Your task to perform on an android device: Open calendar and show me the third week of next month Image 0: 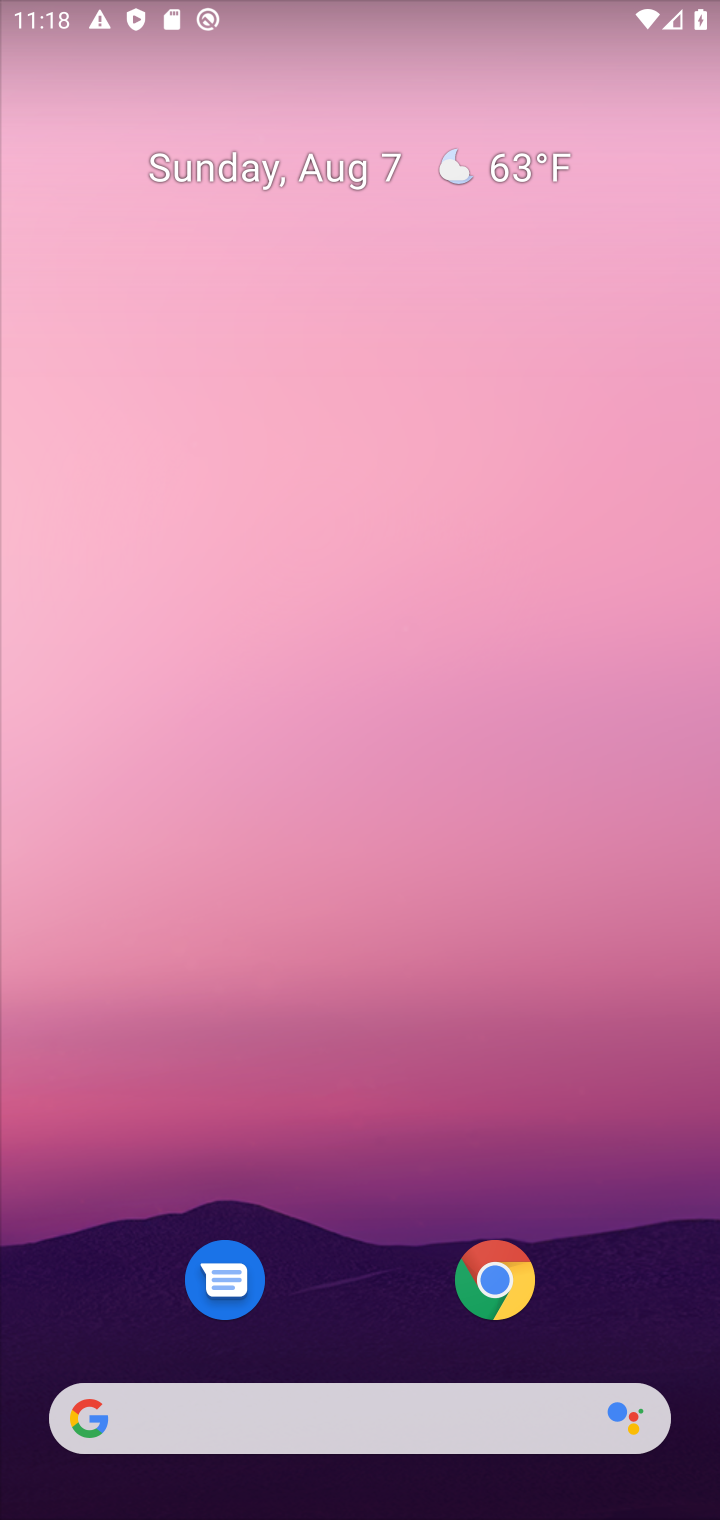
Step 0: drag from (343, 1275) to (324, 103)
Your task to perform on an android device: Open calendar and show me the third week of next month Image 1: 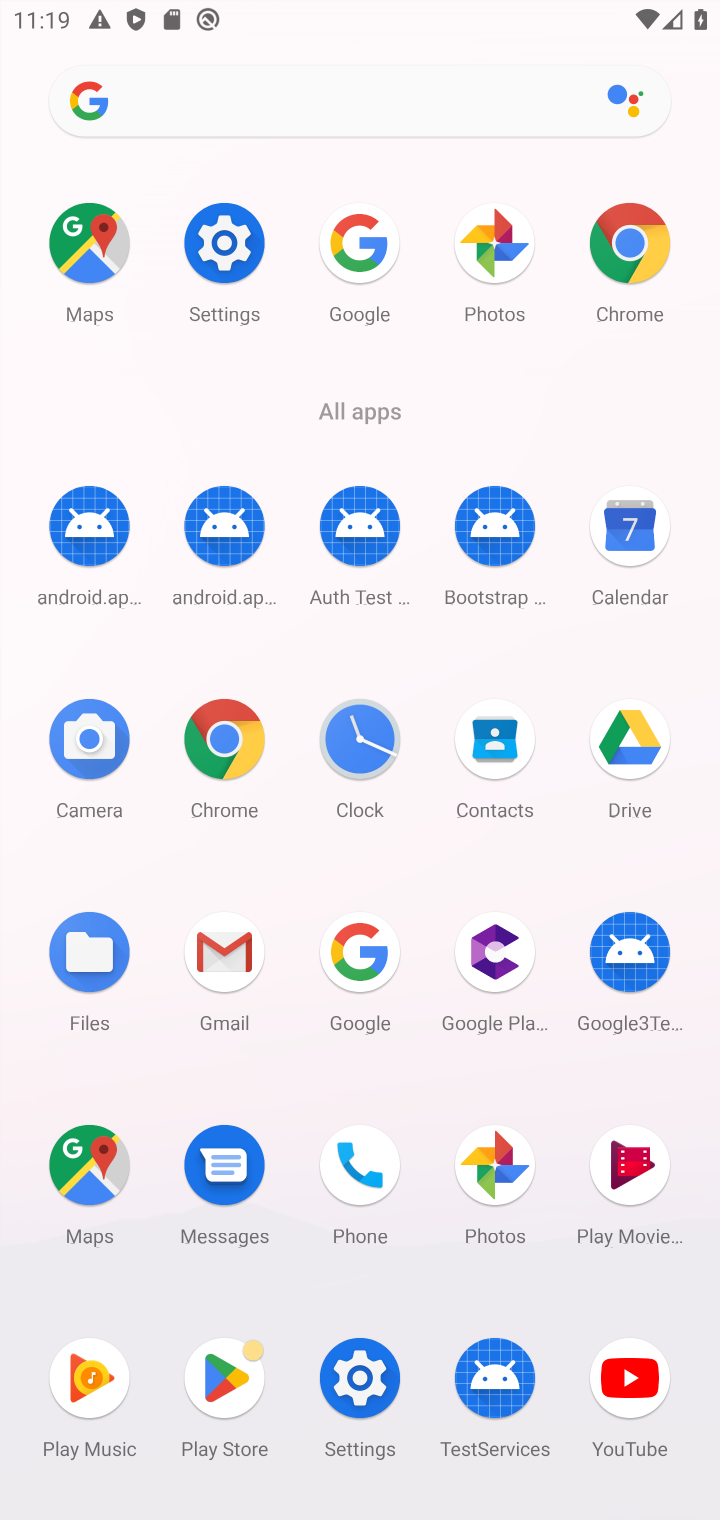
Step 1: click (619, 533)
Your task to perform on an android device: Open calendar and show me the third week of next month Image 2: 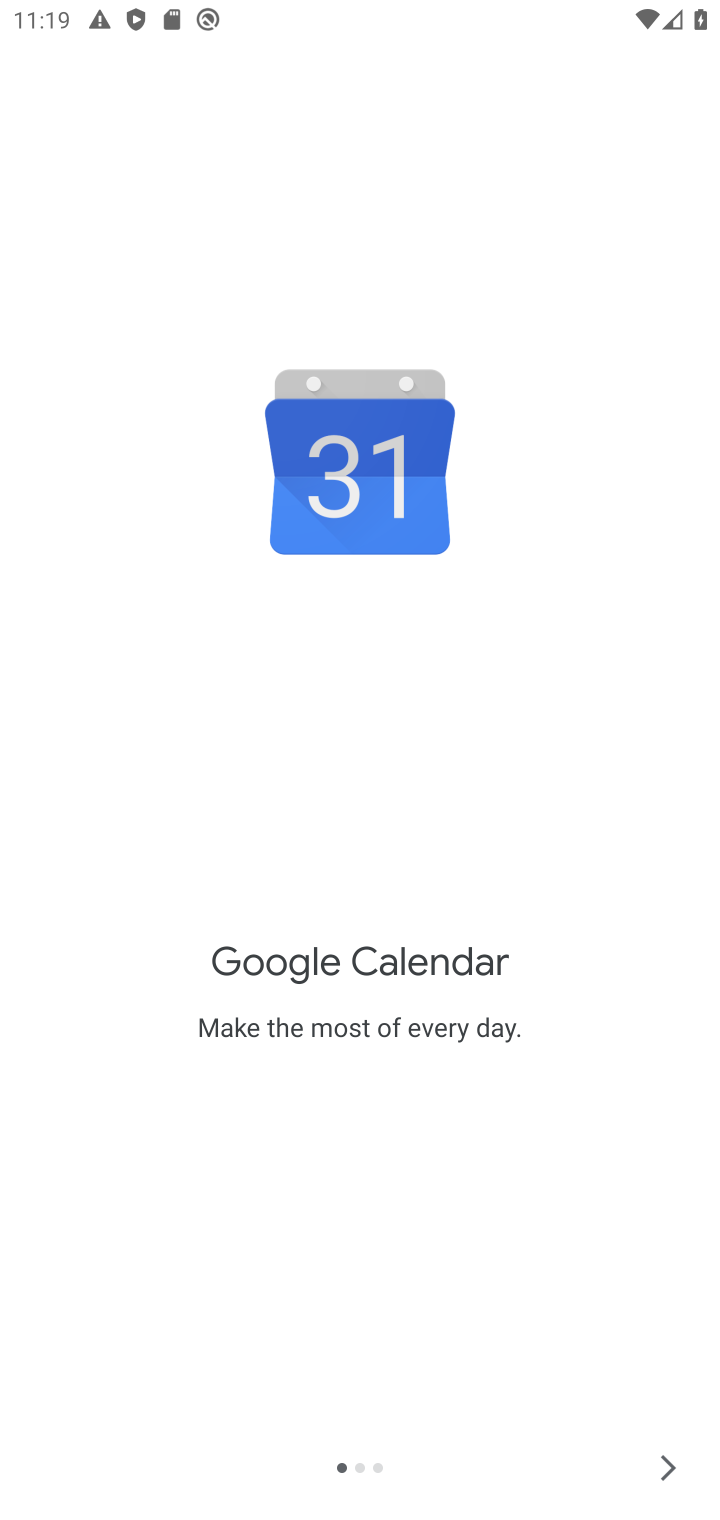
Step 2: click (668, 1464)
Your task to perform on an android device: Open calendar and show me the third week of next month Image 3: 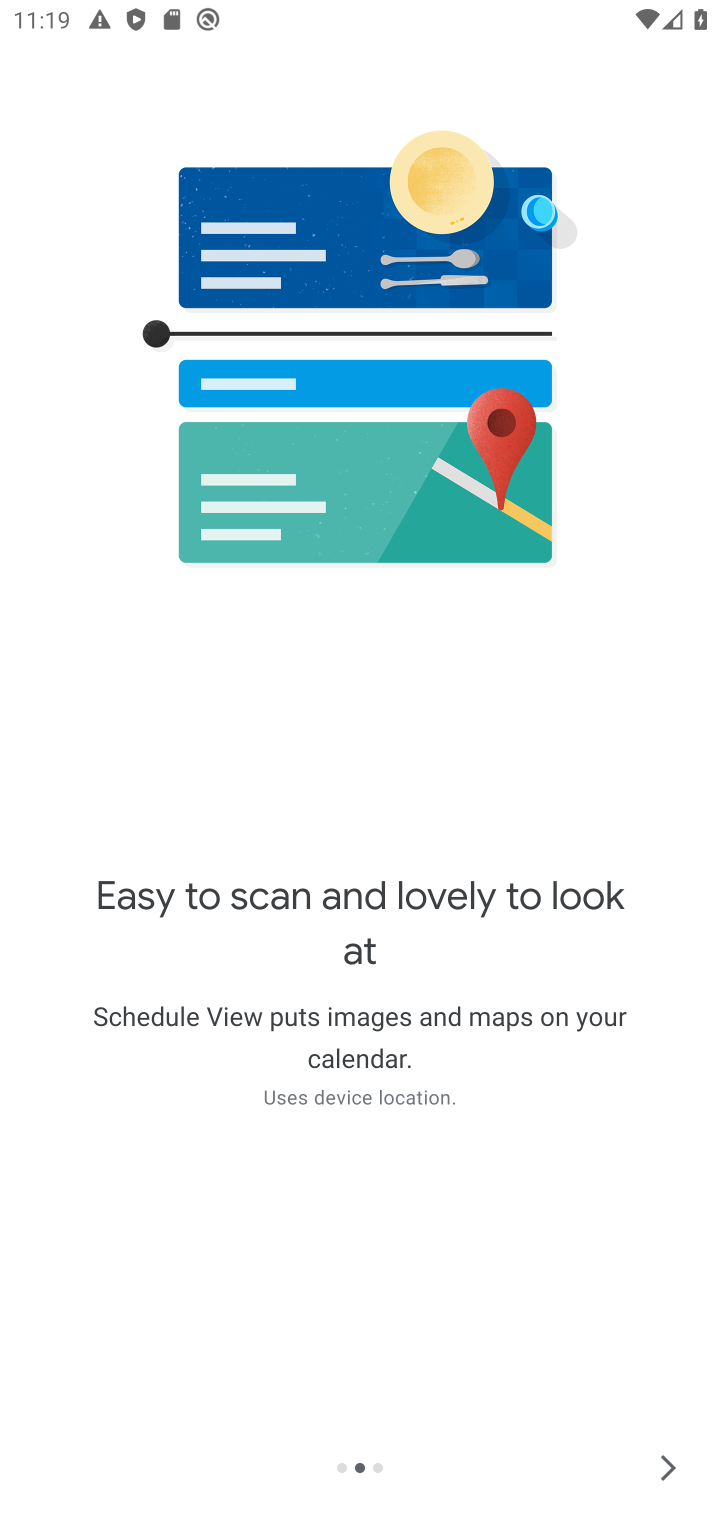
Step 3: click (668, 1464)
Your task to perform on an android device: Open calendar and show me the third week of next month Image 4: 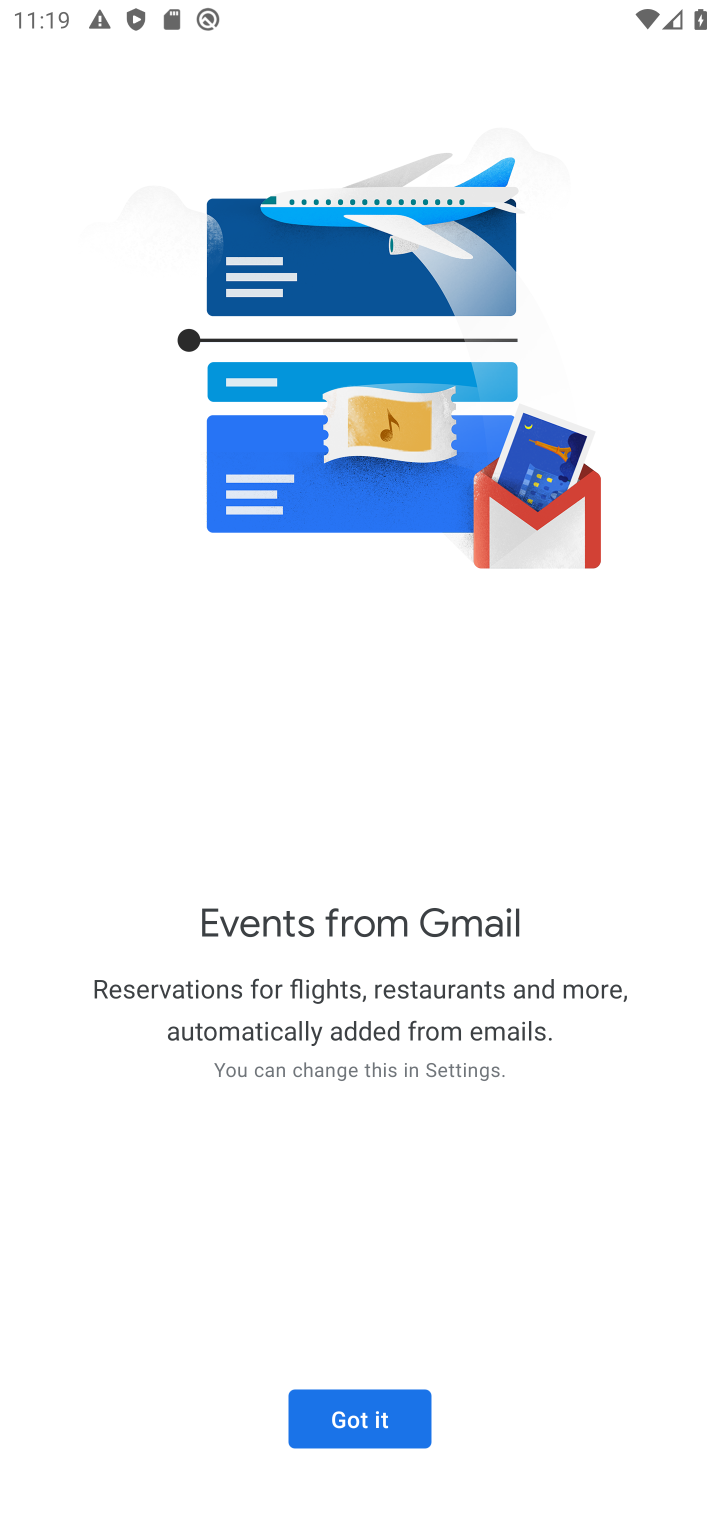
Step 4: click (371, 1409)
Your task to perform on an android device: Open calendar and show me the third week of next month Image 5: 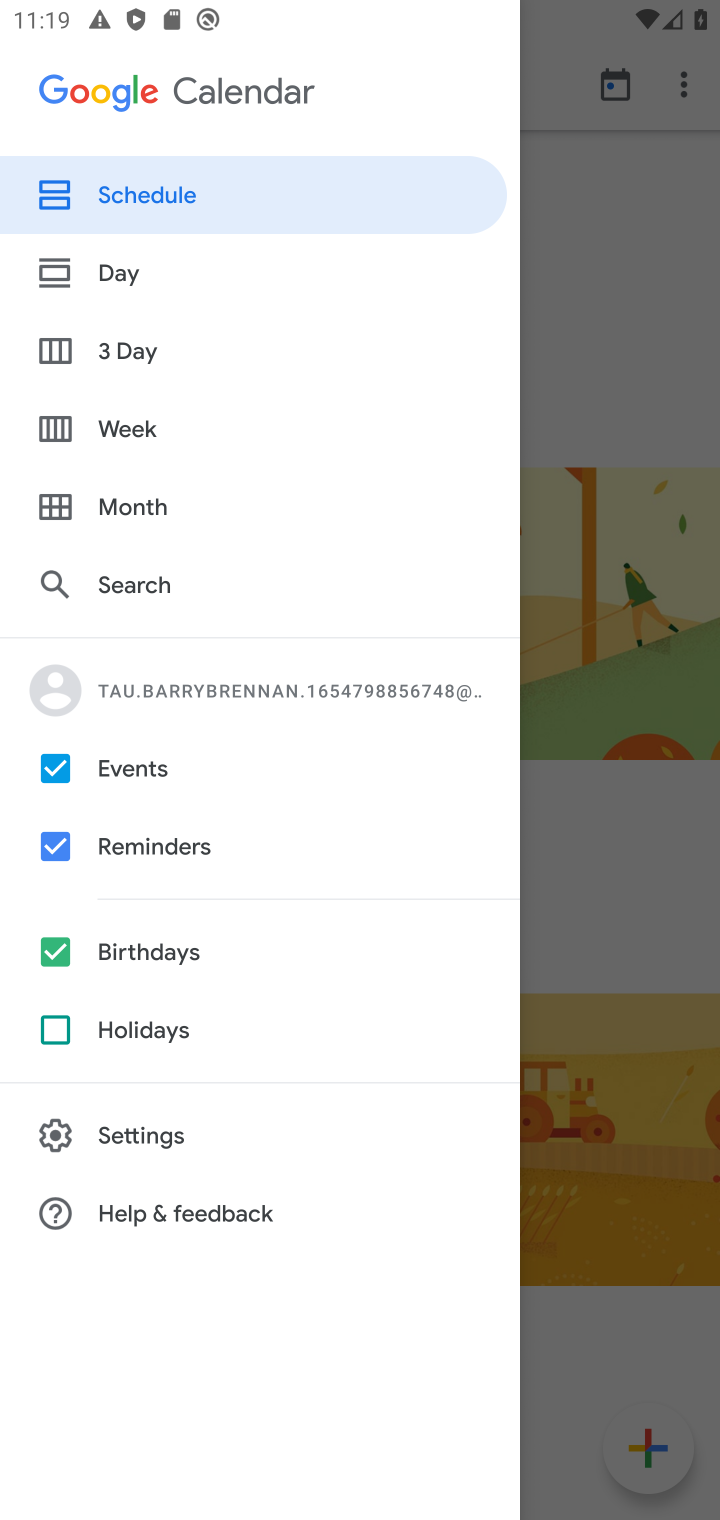
Step 5: click (130, 417)
Your task to perform on an android device: Open calendar and show me the third week of next month Image 6: 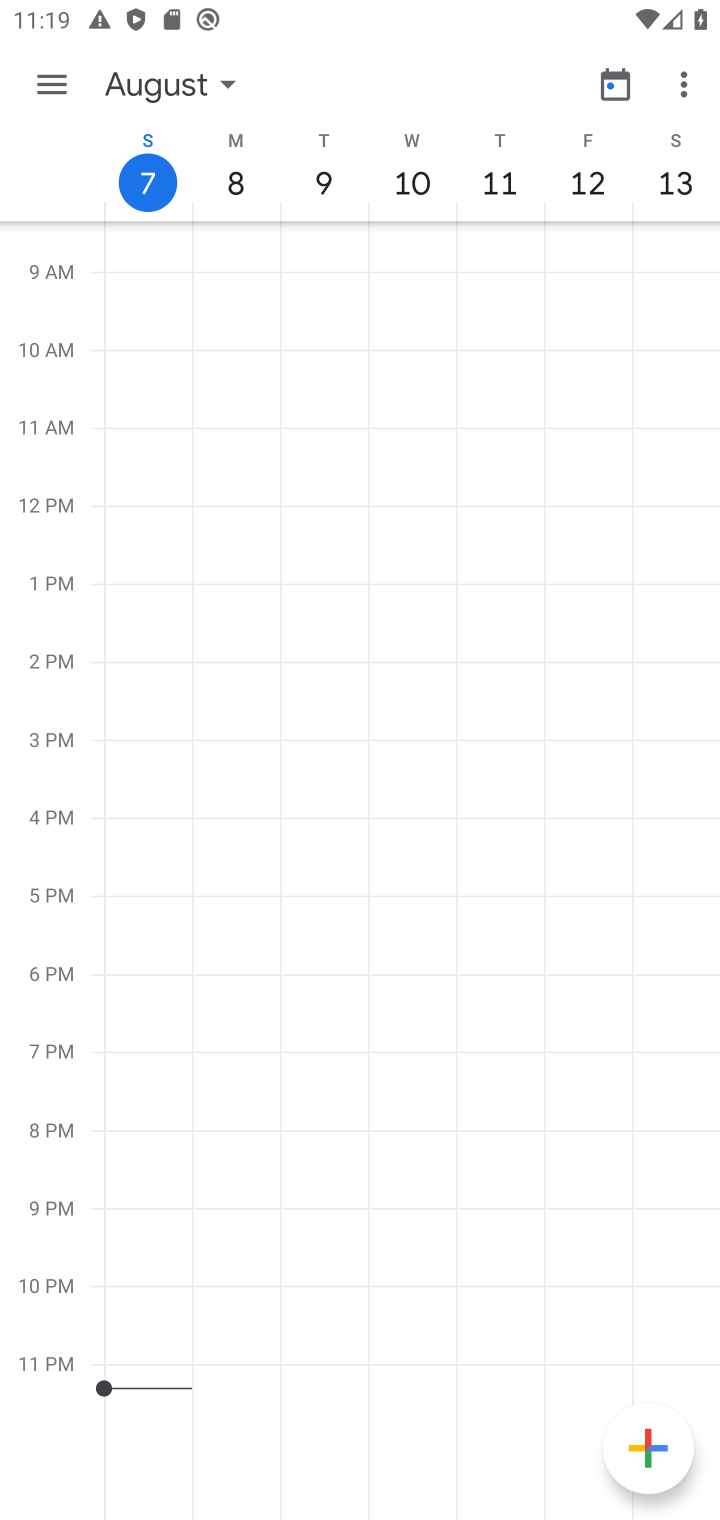
Step 6: click (227, 92)
Your task to perform on an android device: Open calendar and show me the third week of next month Image 7: 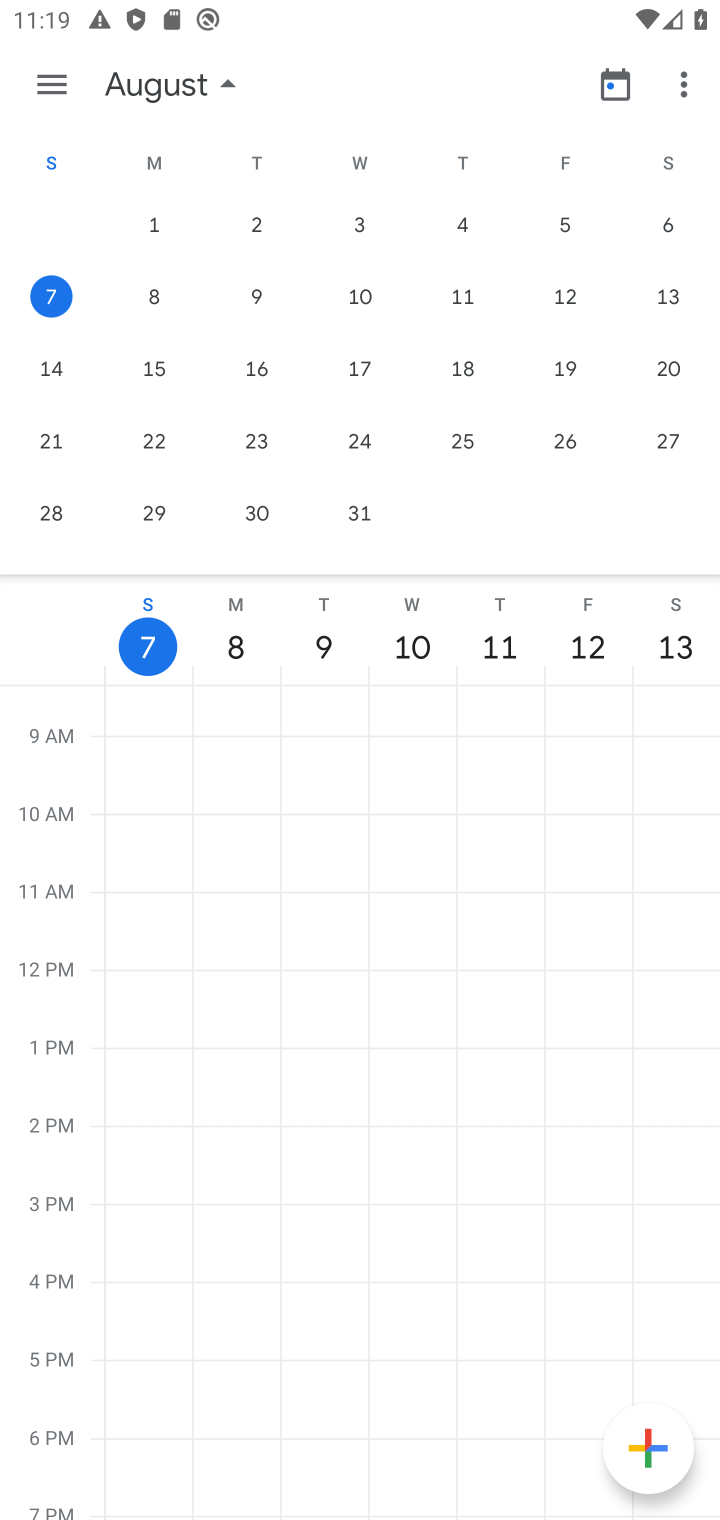
Step 7: drag from (598, 333) to (18, 336)
Your task to perform on an android device: Open calendar and show me the third week of next month Image 8: 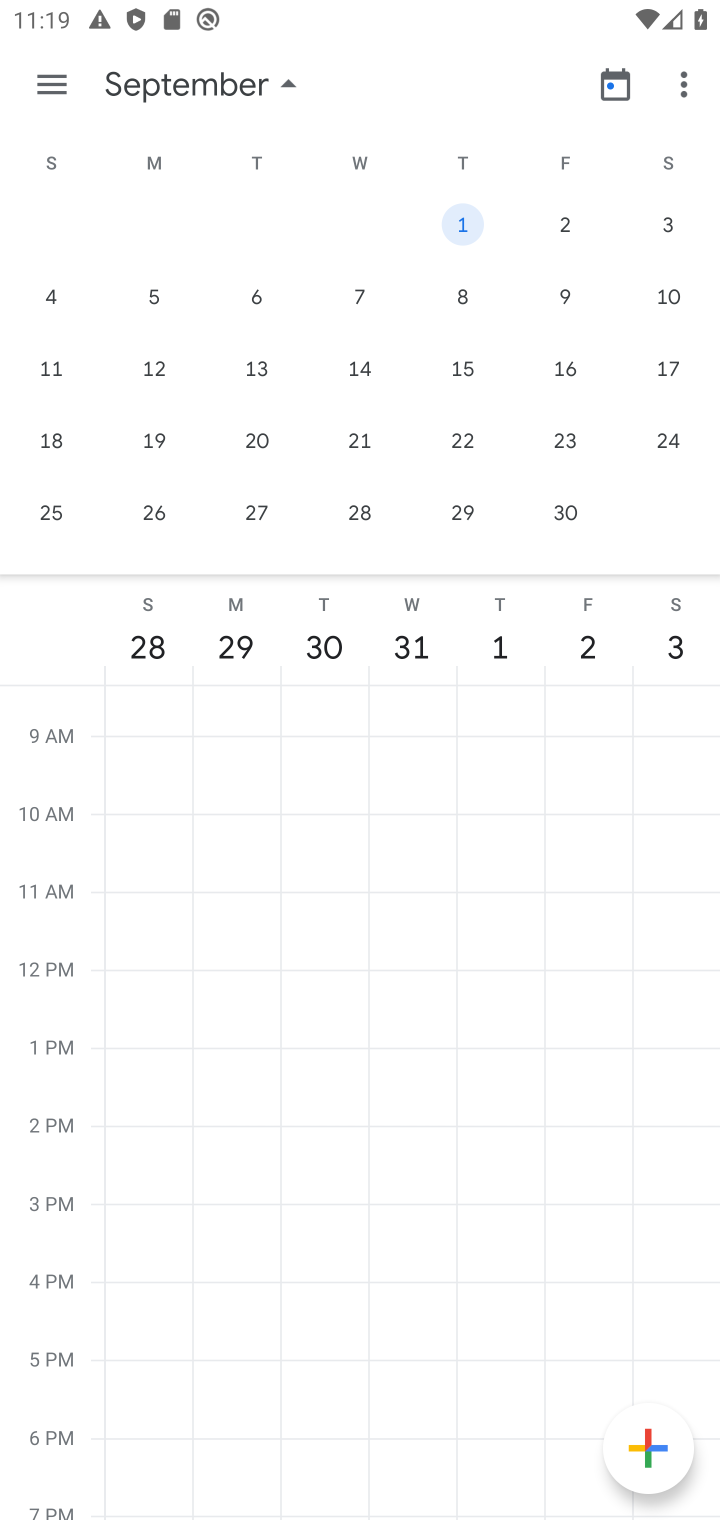
Step 8: click (150, 429)
Your task to perform on an android device: Open calendar and show me the third week of next month Image 9: 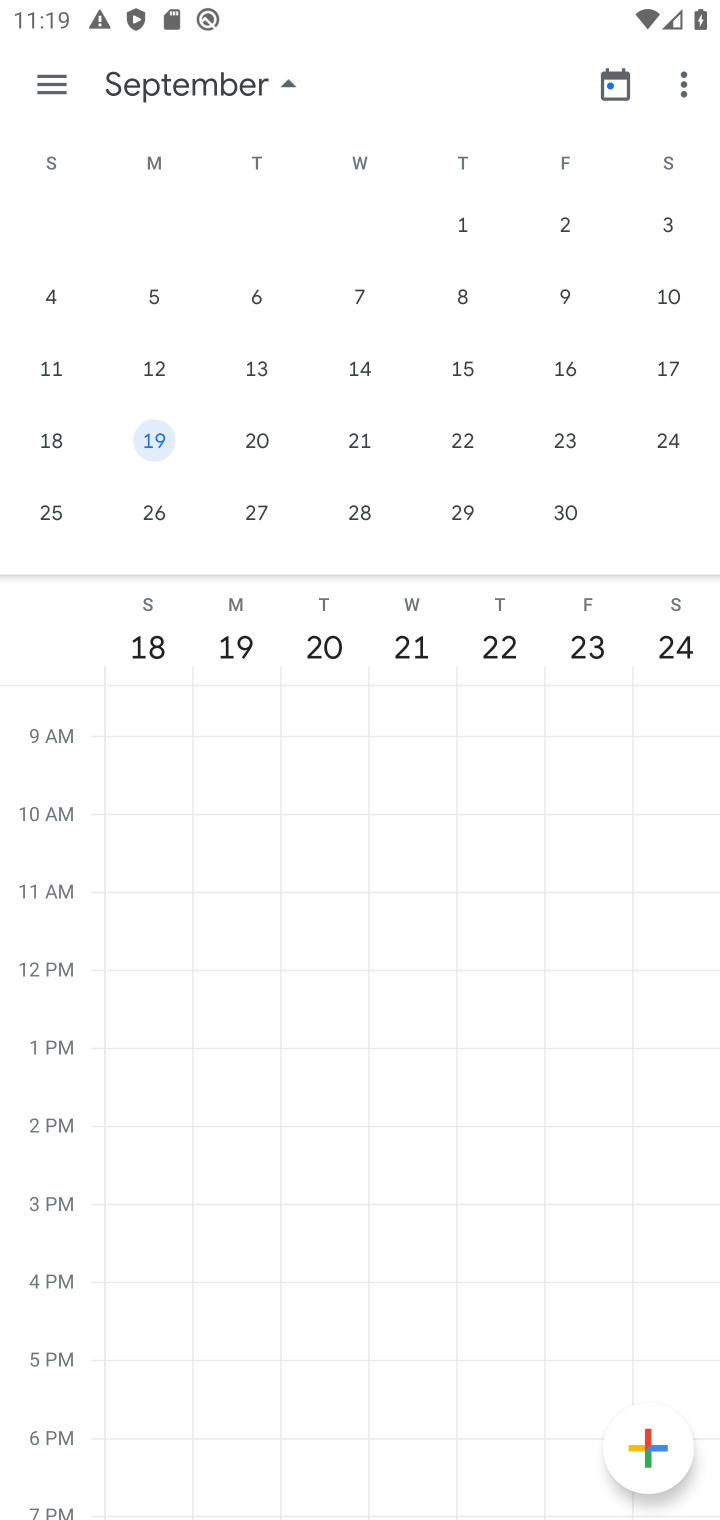
Step 9: click (148, 427)
Your task to perform on an android device: Open calendar and show me the third week of next month Image 10: 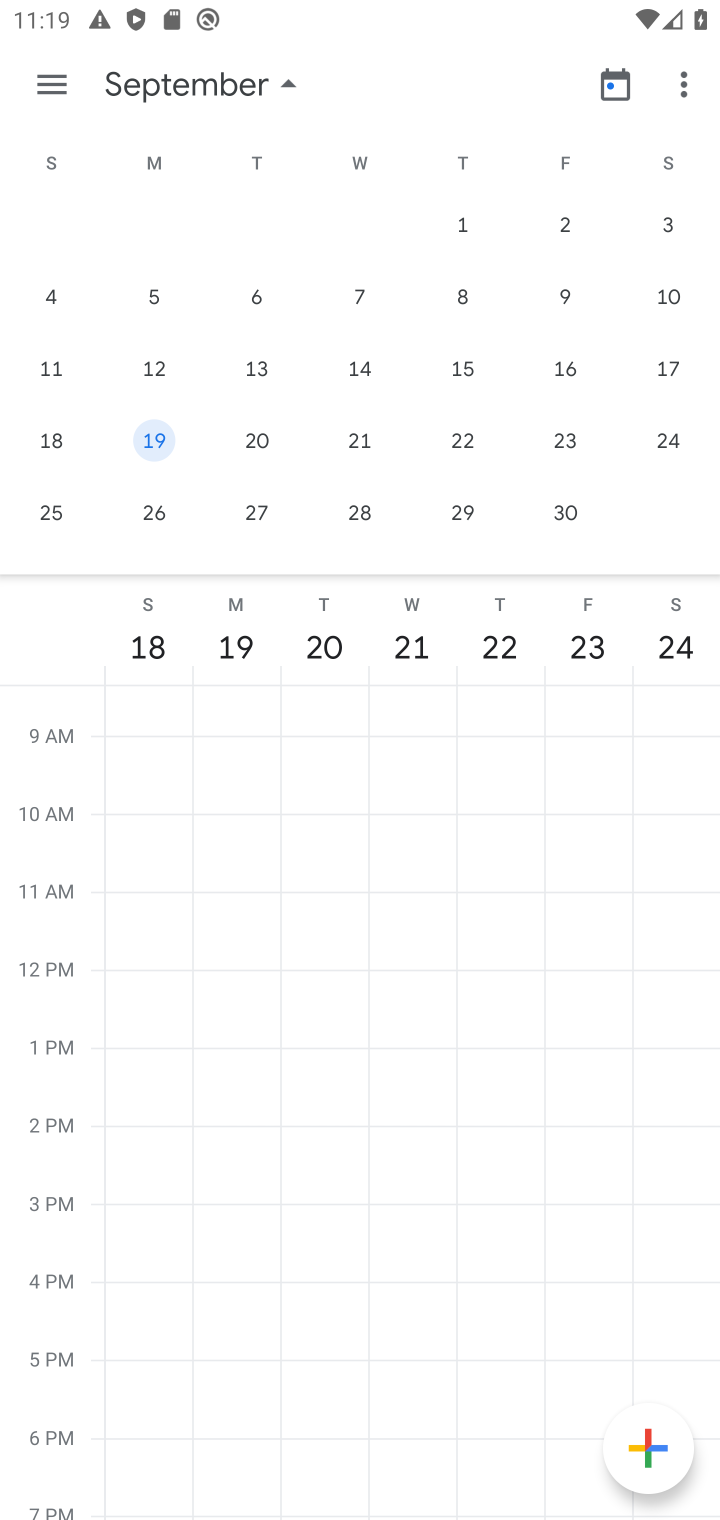
Step 10: task complete